Your task to perform on an android device: turn on notifications settings in the gmail app Image 0: 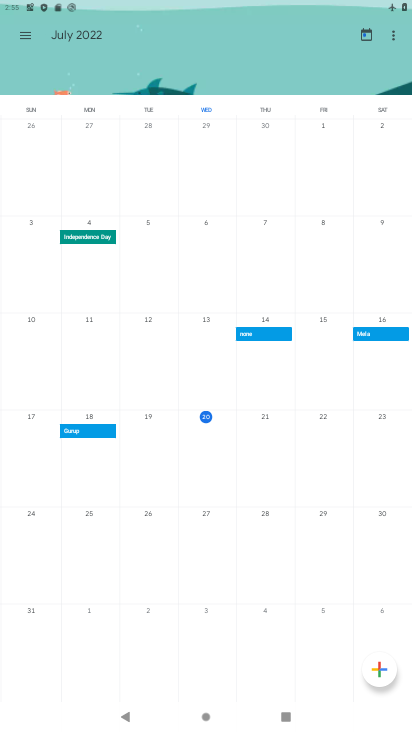
Step 0: press home button
Your task to perform on an android device: turn on notifications settings in the gmail app Image 1: 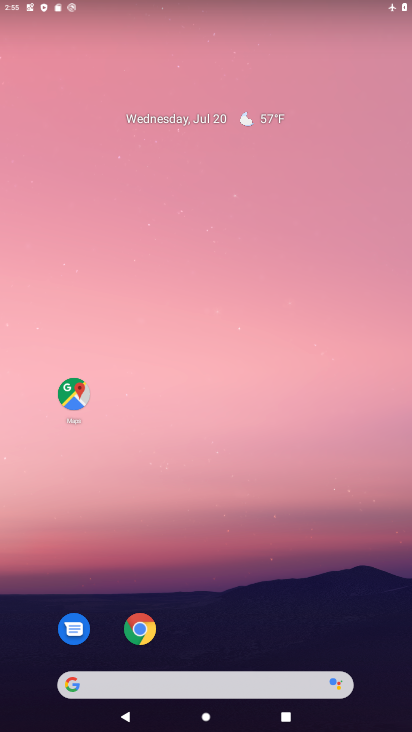
Step 1: drag from (186, 618) to (190, 199)
Your task to perform on an android device: turn on notifications settings in the gmail app Image 2: 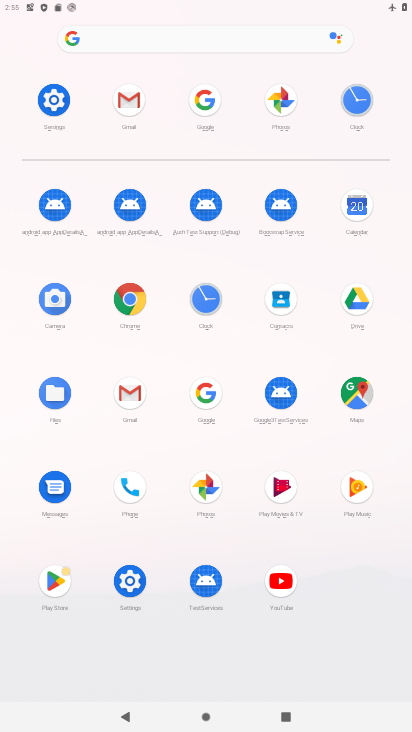
Step 2: click (120, 115)
Your task to perform on an android device: turn on notifications settings in the gmail app Image 3: 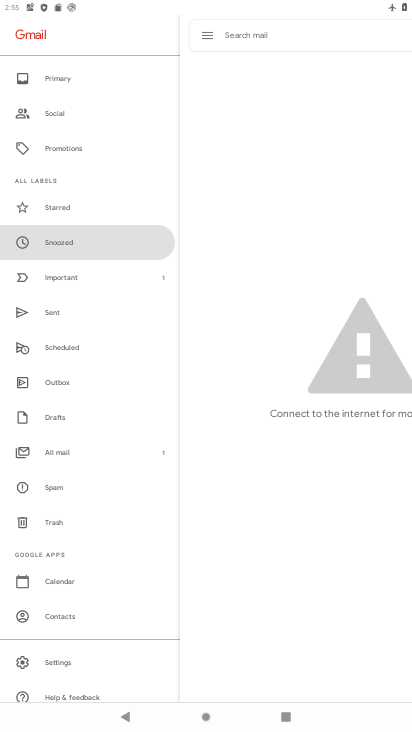
Step 3: click (78, 662)
Your task to perform on an android device: turn on notifications settings in the gmail app Image 4: 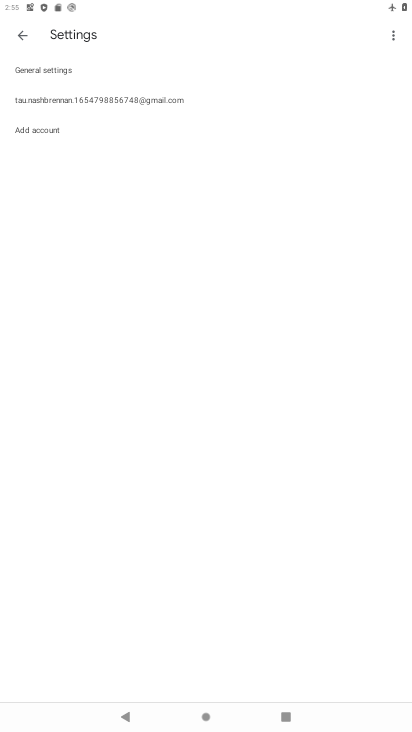
Step 4: click (178, 93)
Your task to perform on an android device: turn on notifications settings in the gmail app Image 5: 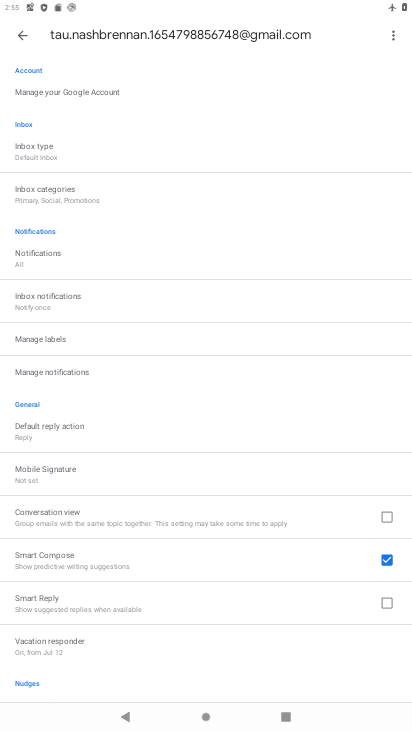
Step 5: click (86, 371)
Your task to perform on an android device: turn on notifications settings in the gmail app Image 6: 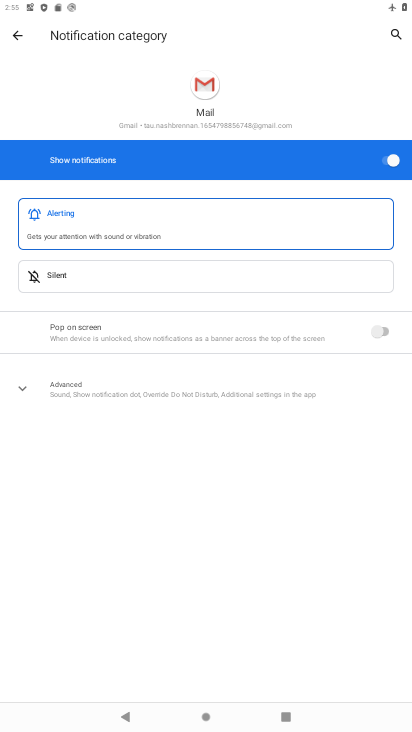
Step 6: task complete